Your task to perform on an android device: Open the Play Movies app and select the watchlist tab. Image 0: 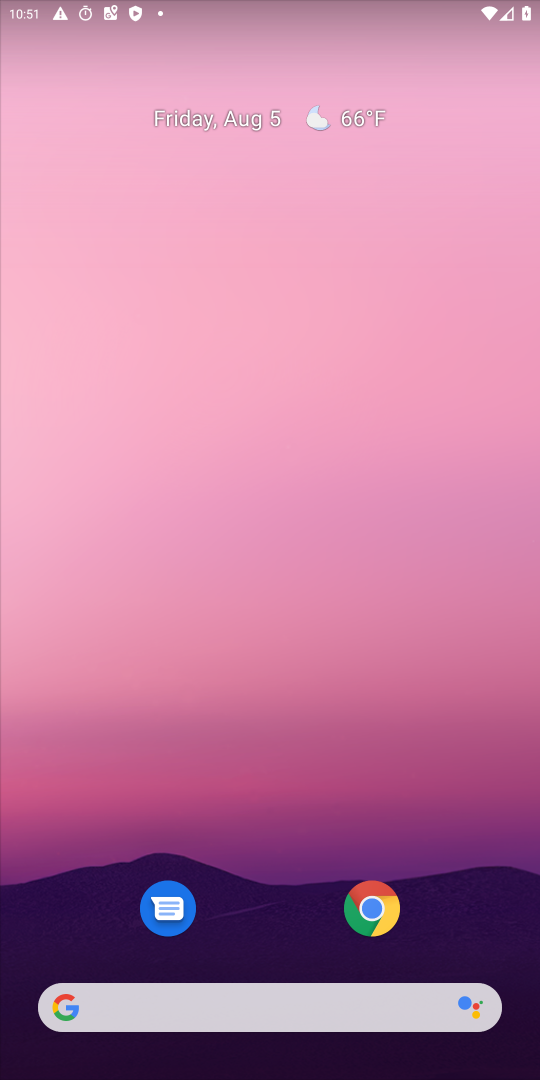
Step 0: drag from (11, 1012) to (318, 186)
Your task to perform on an android device: Open the Play Movies app and select the watchlist tab. Image 1: 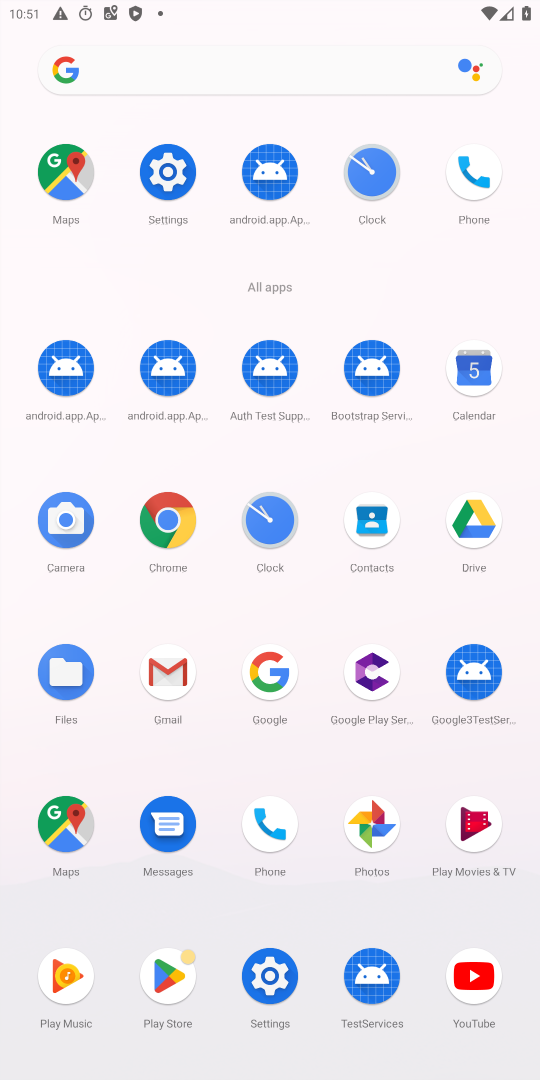
Step 1: click (463, 838)
Your task to perform on an android device: Open the Play Movies app and select the watchlist tab. Image 2: 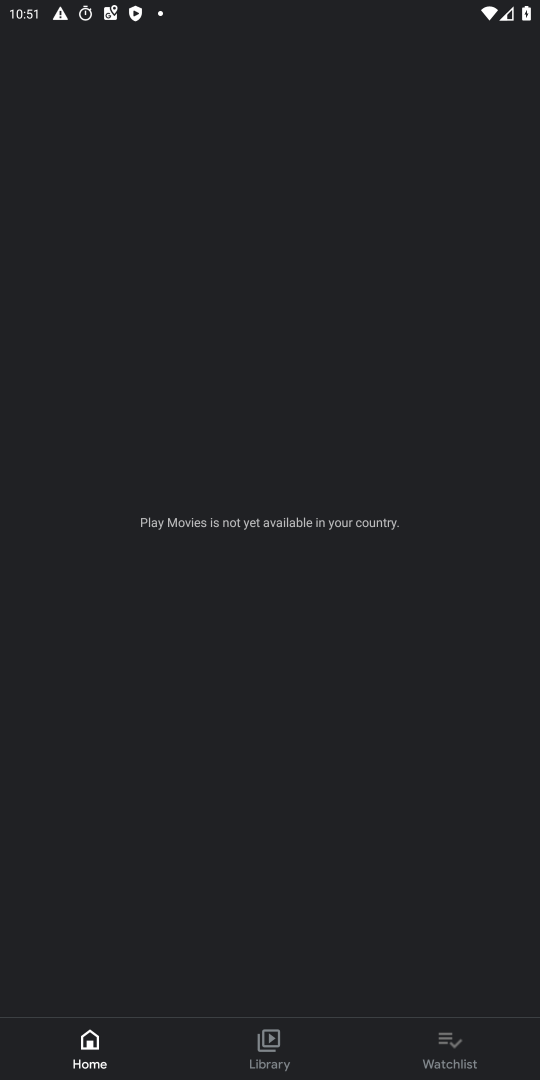
Step 2: click (450, 1055)
Your task to perform on an android device: Open the Play Movies app and select the watchlist tab. Image 3: 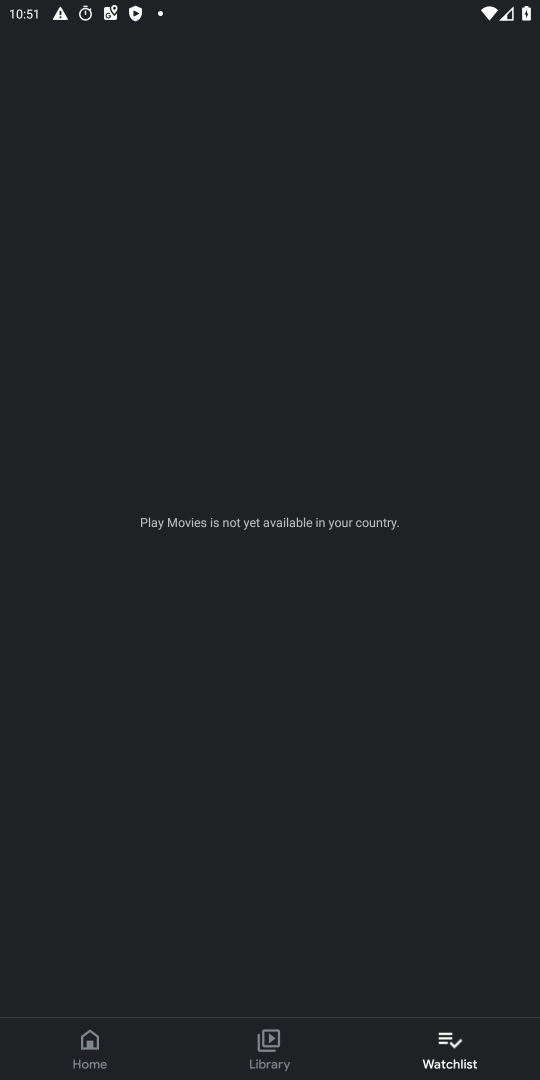
Step 3: task complete